Your task to perform on an android device: Is it going to rain this weekend? Image 0: 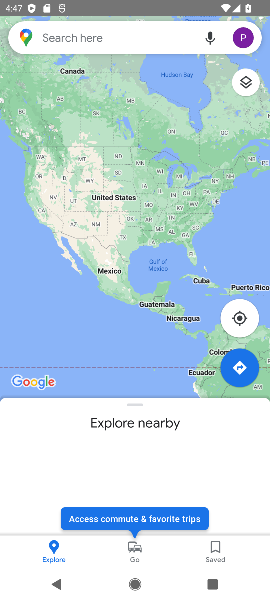
Step 0: press home button
Your task to perform on an android device: Is it going to rain this weekend? Image 1: 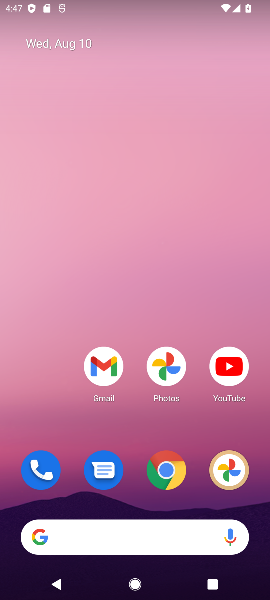
Step 1: click (169, 479)
Your task to perform on an android device: Is it going to rain this weekend? Image 2: 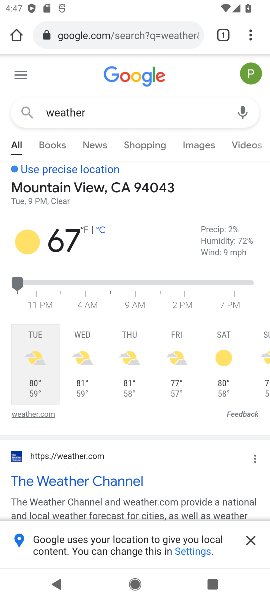
Step 2: click (128, 34)
Your task to perform on an android device: Is it going to rain this weekend? Image 3: 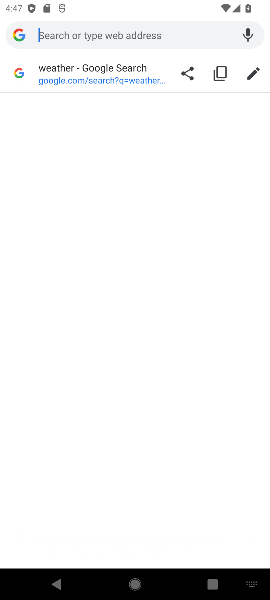
Step 3: type "Is it going to rain this weekend?"
Your task to perform on an android device: Is it going to rain this weekend? Image 4: 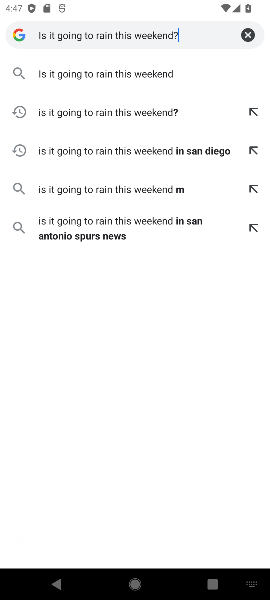
Step 4: type ""
Your task to perform on an android device: Is it going to rain this weekend? Image 5: 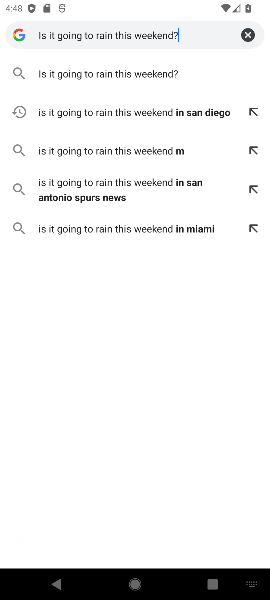
Step 5: click (171, 79)
Your task to perform on an android device: Is it going to rain this weekend? Image 6: 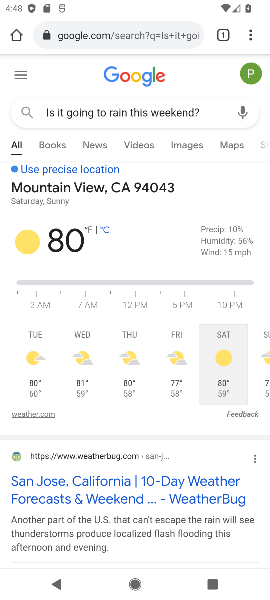
Step 6: task complete